Your task to perform on an android device: What's the weather today? Image 0: 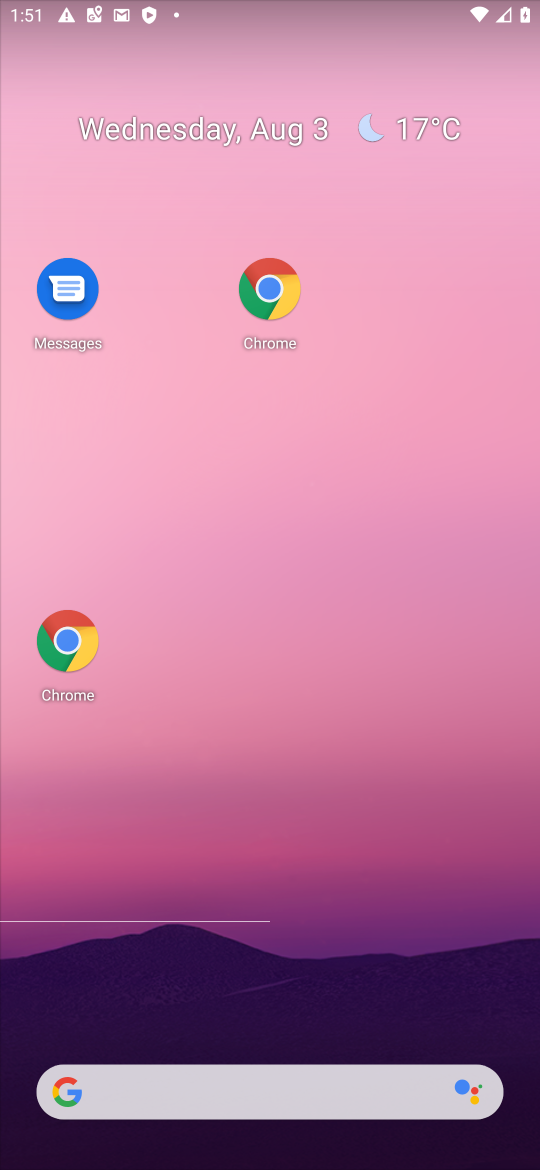
Step 0: drag from (351, 525) to (369, 266)
Your task to perform on an android device: What's the weather today? Image 1: 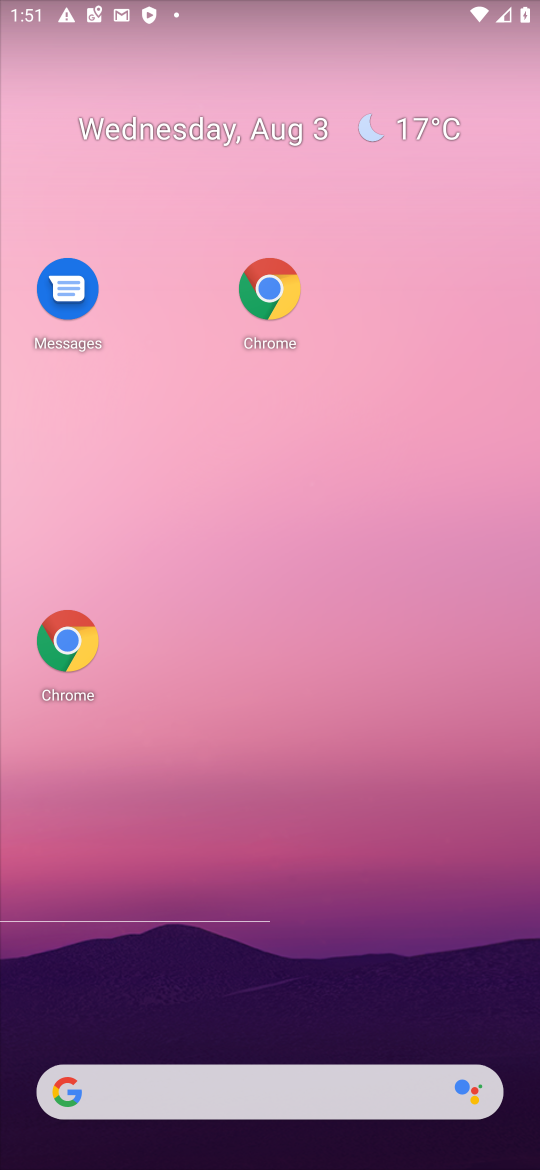
Step 1: drag from (308, 916) to (308, 32)
Your task to perform on an android device: What's the weather today? Image 2: 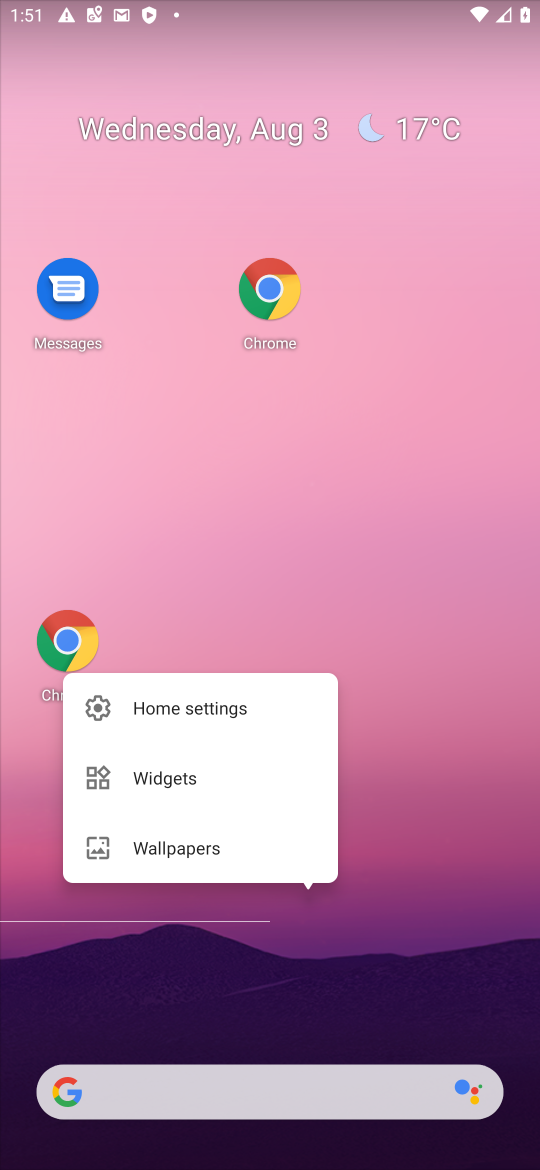
Step 2: click (316, 432)
Your task to perform on an android device: What's the weather today? Image 3: 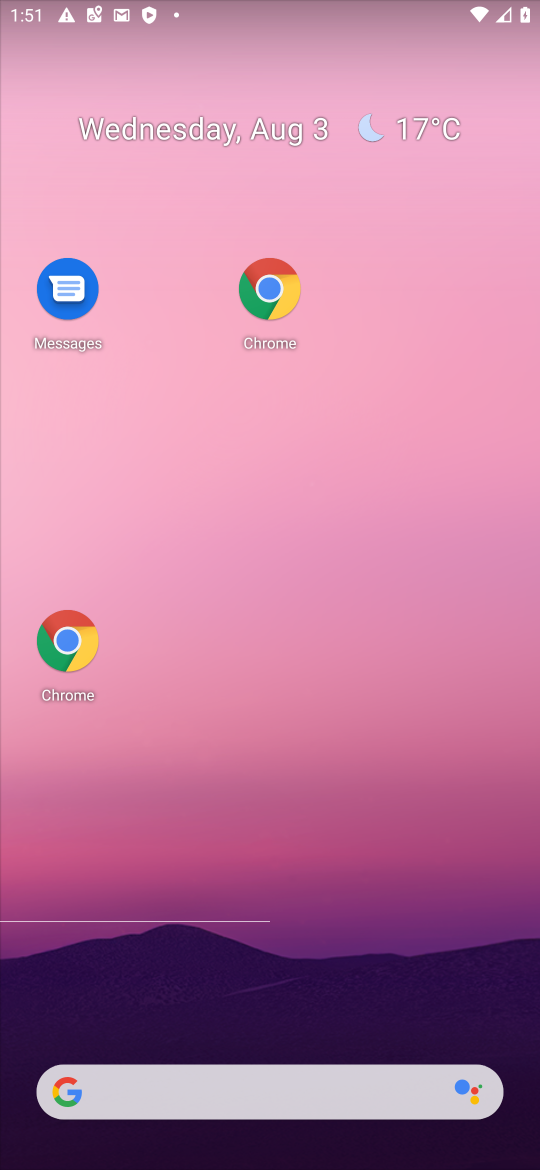
Step 3: drag from (355, 909) to (395, 7)
Your task to perform on an android device: What's the weather today? Image 4: 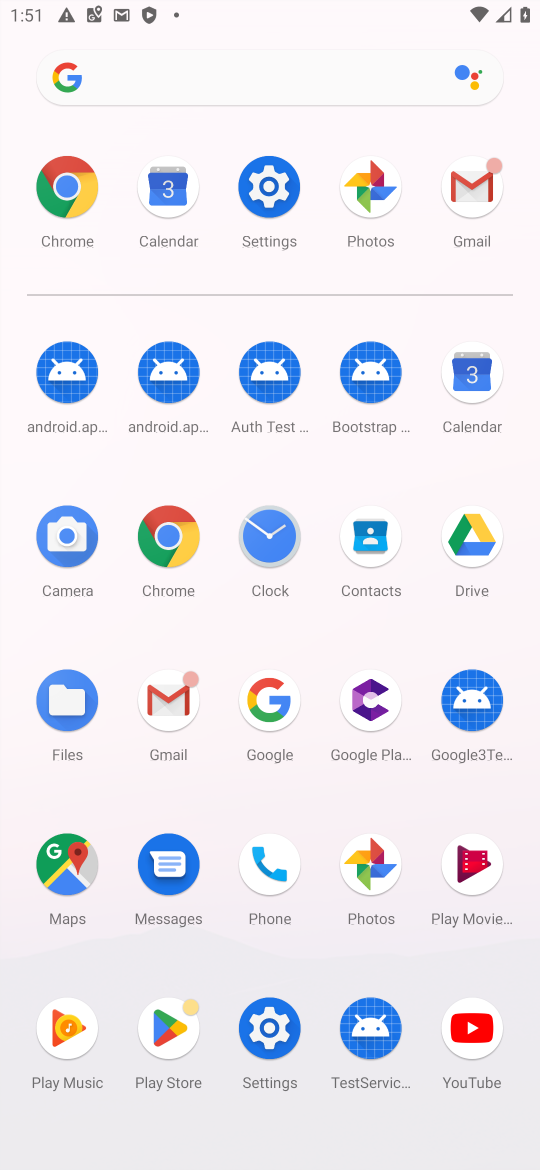
Step 4: click (250, 215)
Your task to perform on an android device: What's the weather today? Image 5: 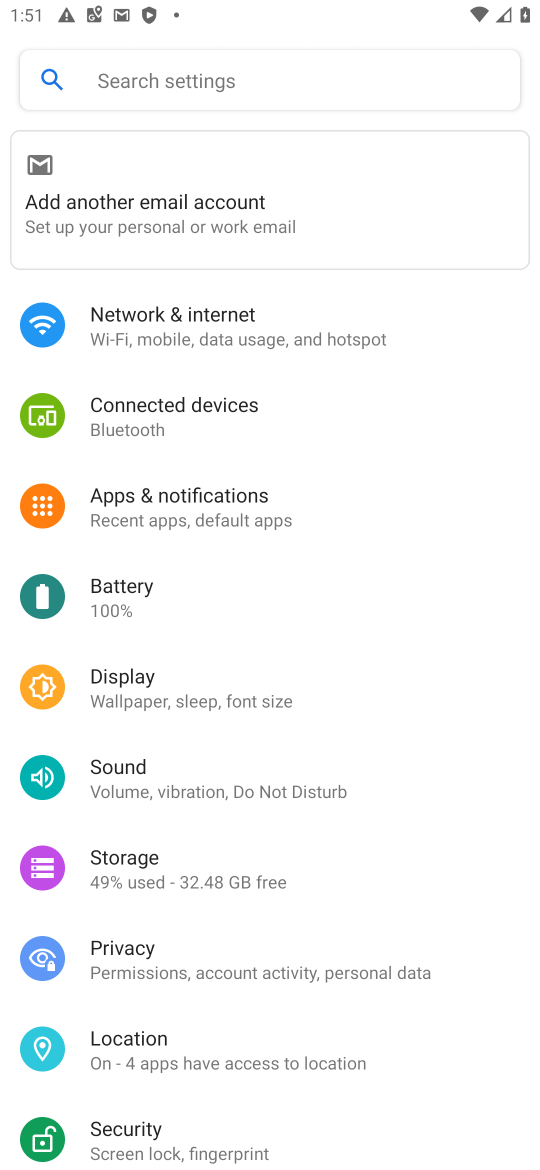
Step 5: press home button
Your task to perform on an android device: What's the weather today? Image 6: 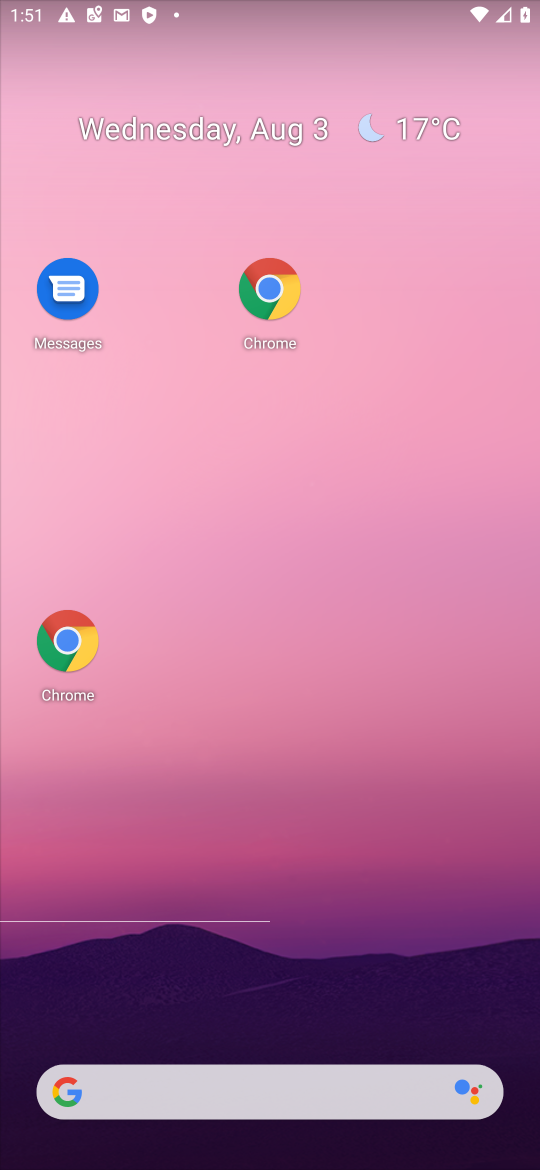
Step 6: click (330, 1093)
Your task to perform on an android device: What's the weather today? Image 7: 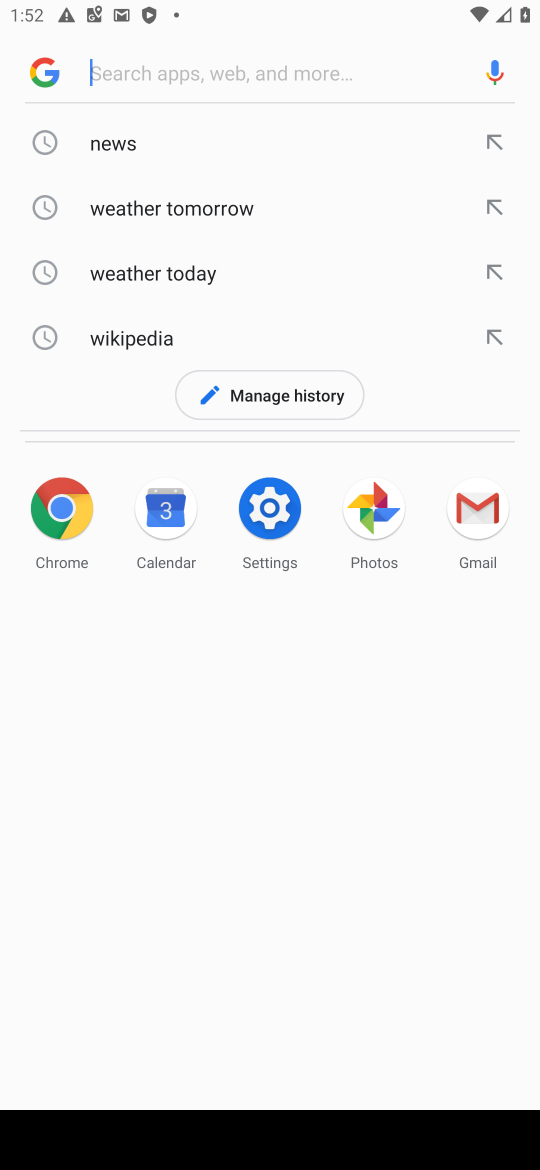
Step 7: type "weather"
Your task to perform on an android device: What's the weather today? Image 8: 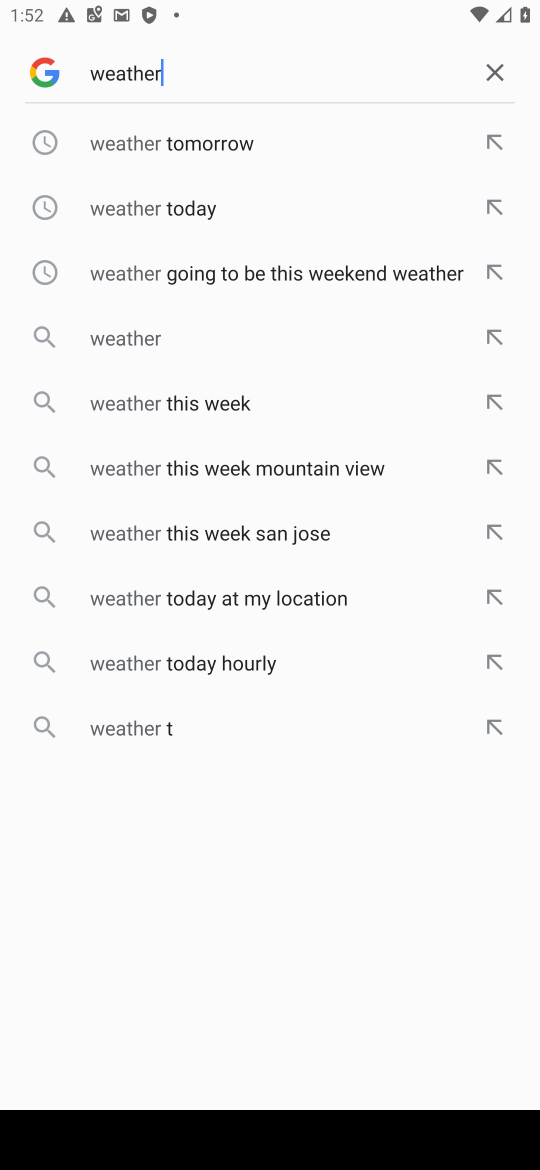
Step 8: click (282, 206)
Your task to perform on an android device: What's the weather today? Image 9: 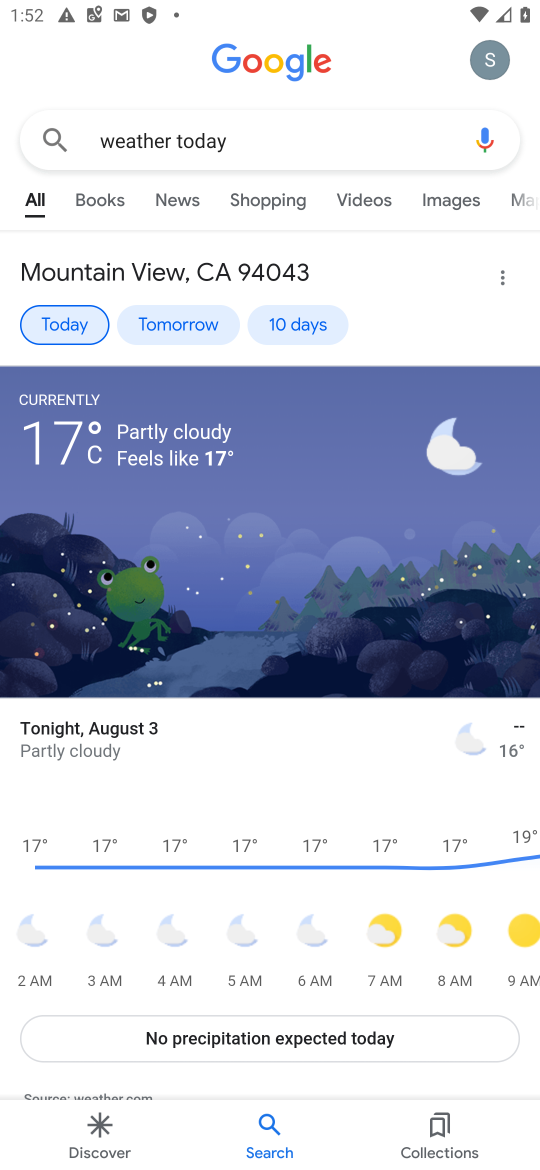
Step 9: task complete